Your task to perform on an android device: Search for Italian restaurants on Maps Image 0: 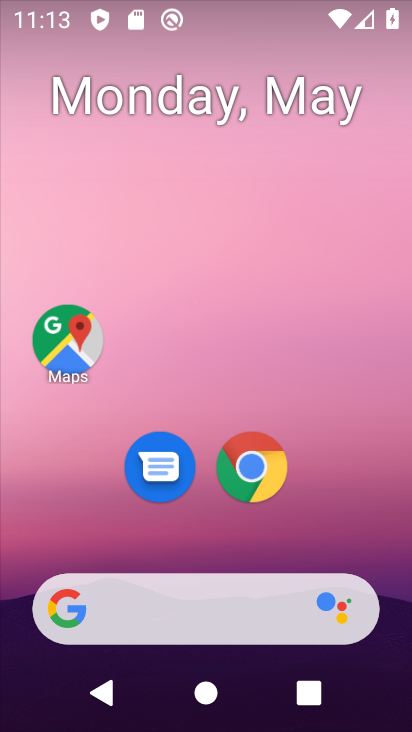
Step 0: click (72, 355)
Your task to perform on an android device: Search for Italian restaurants on Maps Image 1: 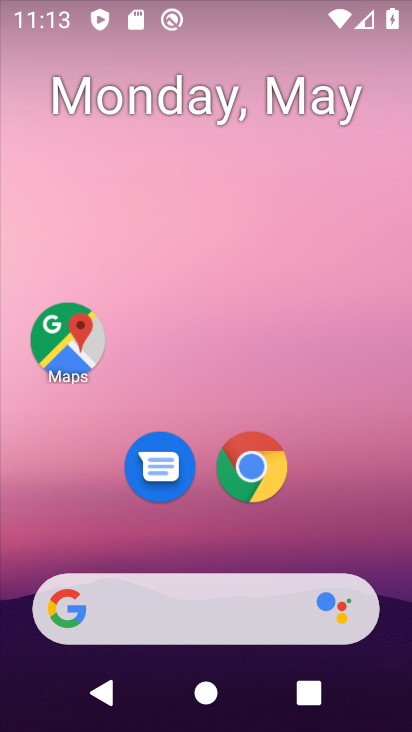
Step 1: click (74, 356)
Your task to perform on an android device: Search for Italian restaurants on Maps Image 2: 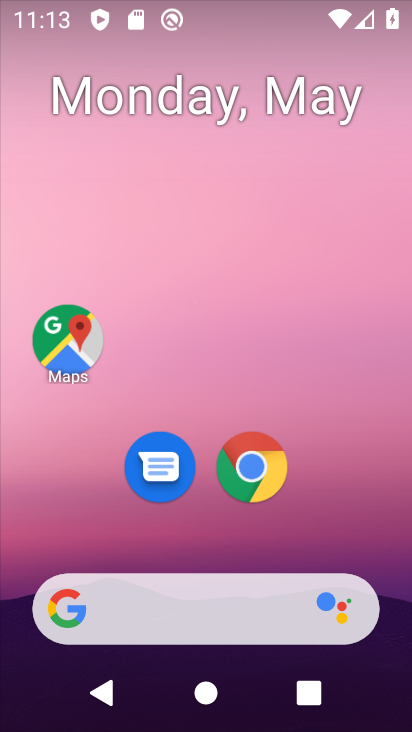
Step 2: click (78, 360)
Your task to perform on an android device: Search for Italian restaurants on Maps Image 3: 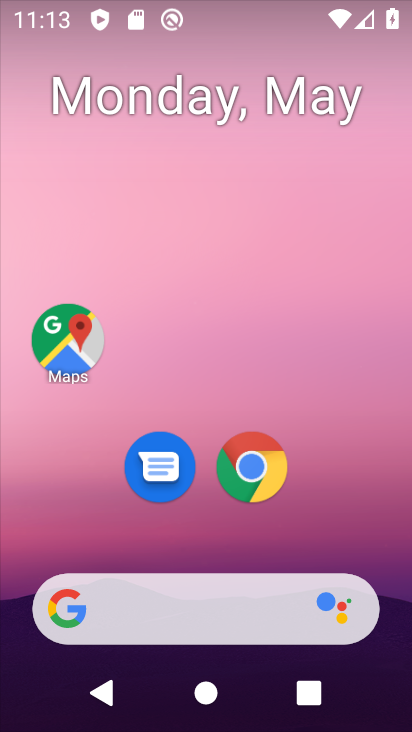
Step 3: click (75, 332)
Your task to perform on an android device: Search for Italian restaurants on Maps Image 4: 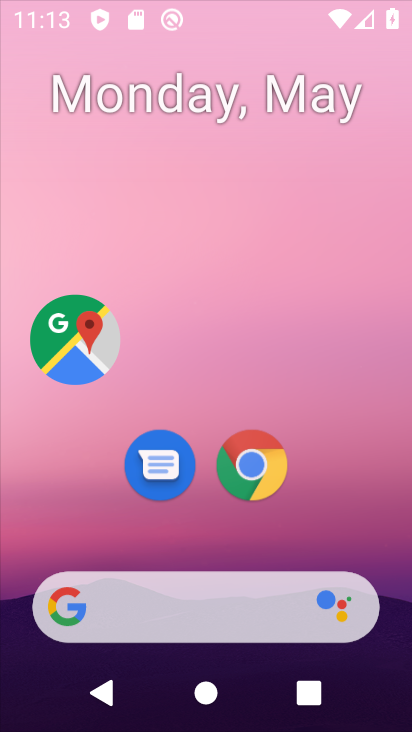
Step 4: click (78, 336)
Your task to perform on an android device: Search for Italian restaurants on Maps Image 5: 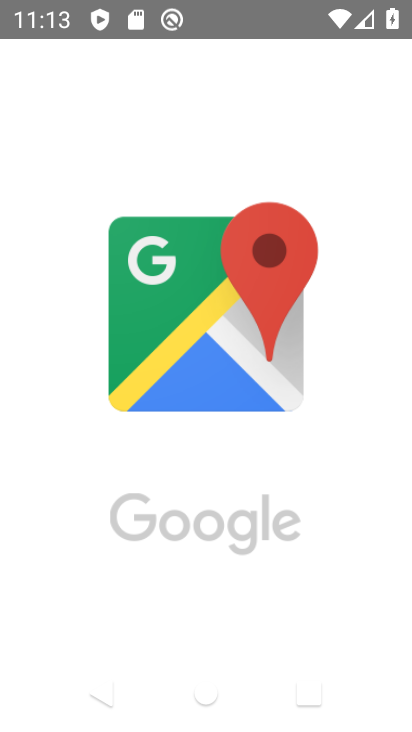
Step 5: click (78, 336)
Your task to perform on an android device: Search for Italian restaurants on Maps Image 6: 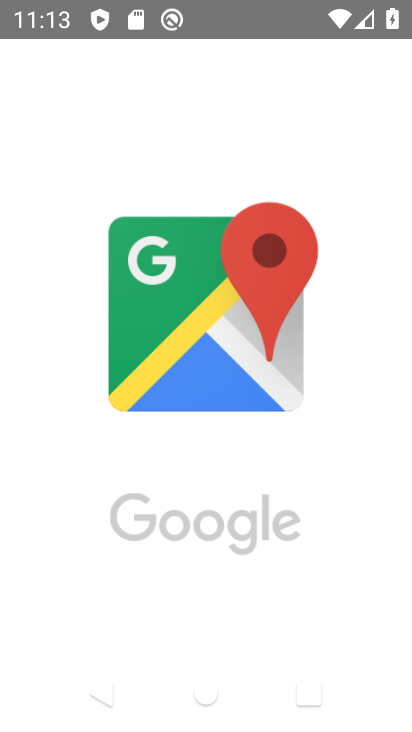
Step 6: click (81, 341)
Your task to perform on an android device: Search for Italian restaurants on Maps Image 7: 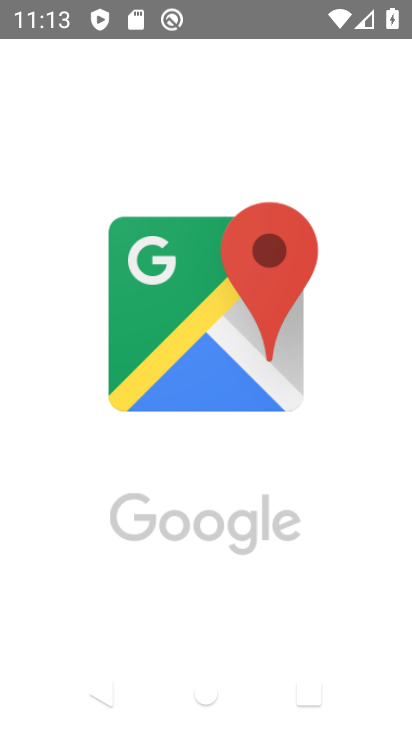
Step 7: click (208, 326)
Your task to perform on an android device: Search for Italian restaurants on Maps Image 8: 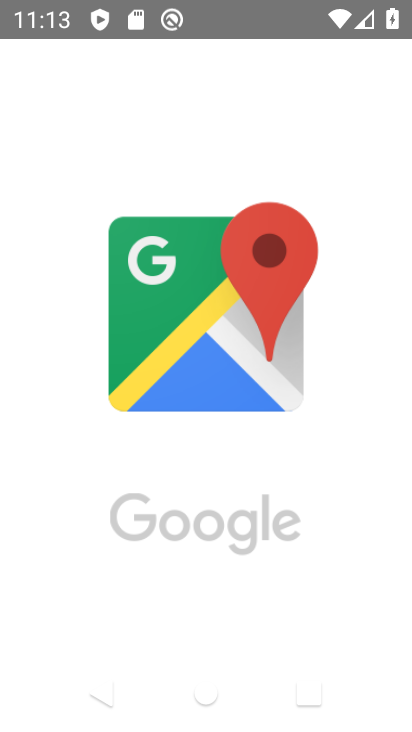
Step 8: click (203, 330)
Your task to perform on an android device: Search for Italian restaurants on Maps Image 9: 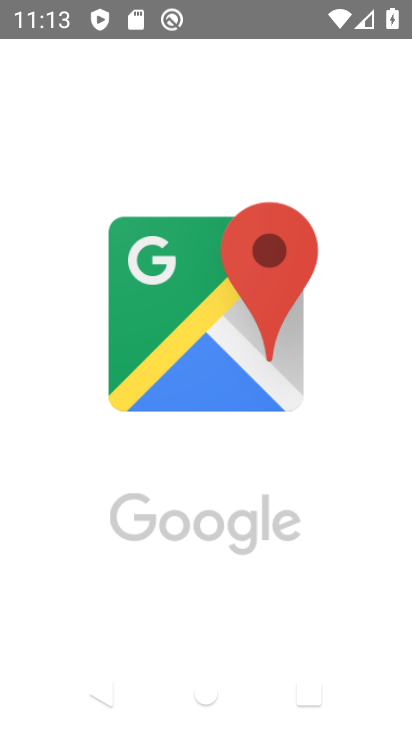
Step 9: click (198, 319)
Your task to perform on an android device: Search for Italian restaurants on Maps Image 10: 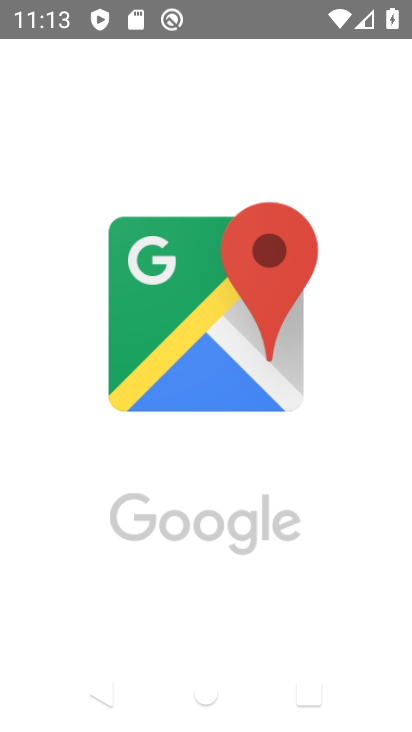
Step 10: click (196, 317)
Your task to perform on an android device: Search for Italian restaurants on Maps Image 11: 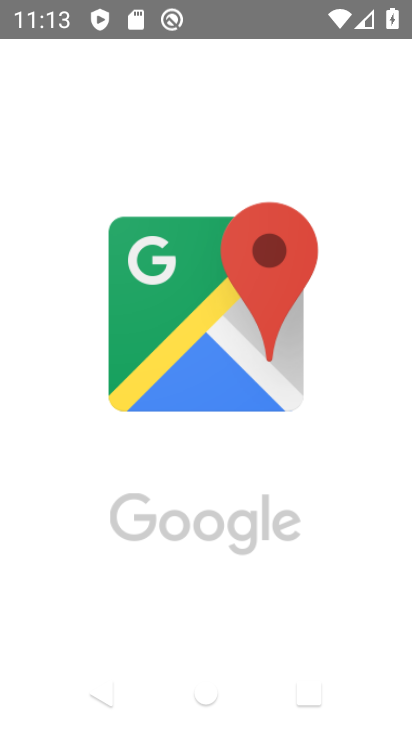
Step 11: click (194, 316)
Your task to perform on an android device: Search for Italian restaurants on Maps Image 12: 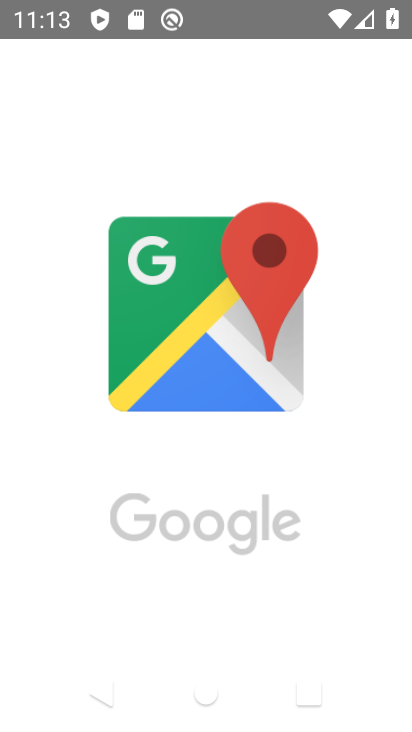
Step 12: click (194, 316)
Your task to perform on an android device: Search for Italian restaurants on Maps Image 13: 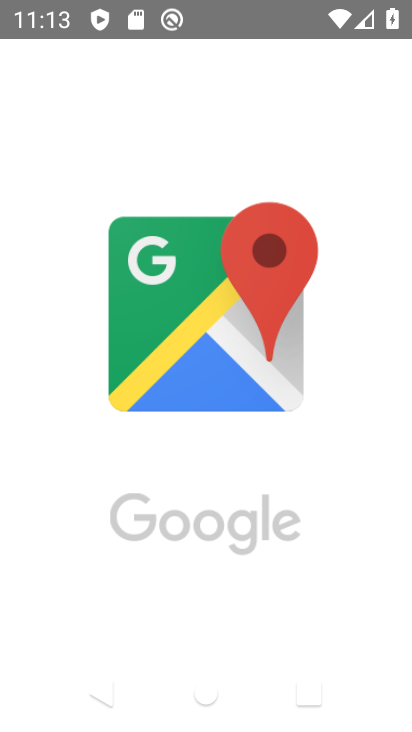
Step 13: click (227, 351)
Your task to perform on an android device: Search for Italian restaurants on Maps Image 14: 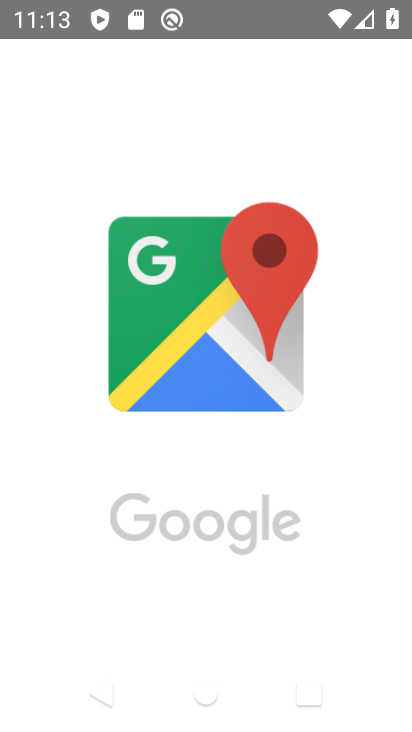
Step 14: click (226, 352)
Your task to perform on an android device: Search for Italian restaurants on Maps Image 15: 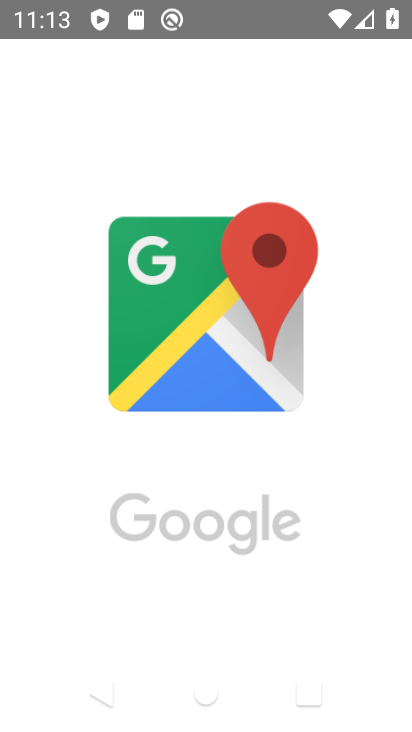
Step 15: click (226, 353)
Your task to perform on an android device: Search for Italian restaurants on Maps Image 16: 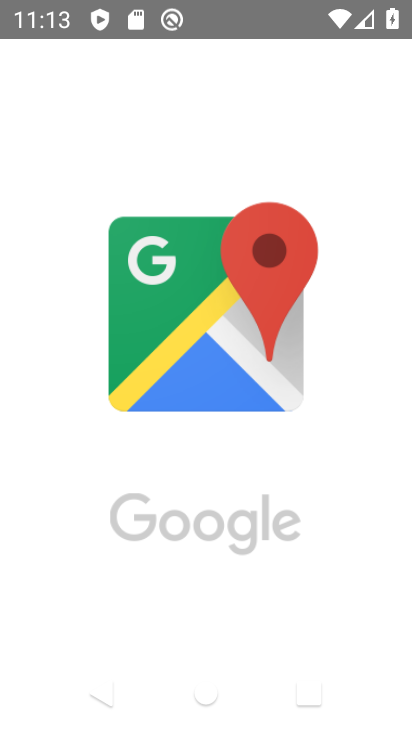
Step 16: click (226, 353)
Your task to perform on an android device: Search for Italian restaurants on Maps Image 17: 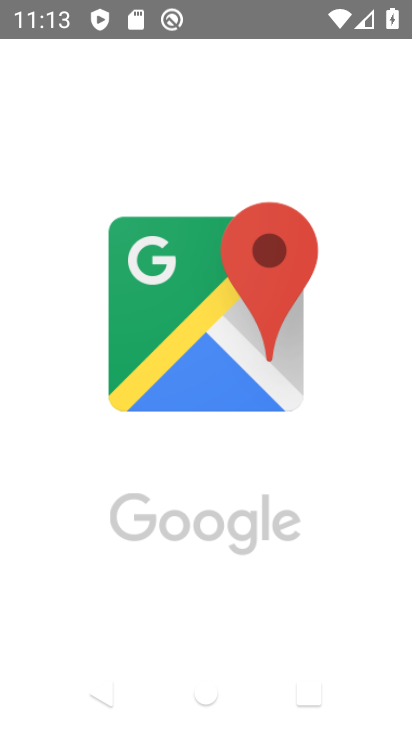
Step 17: click (226, 353)
Your task to perform on an android device: Search for Italian restaurants on Maps Image 18: 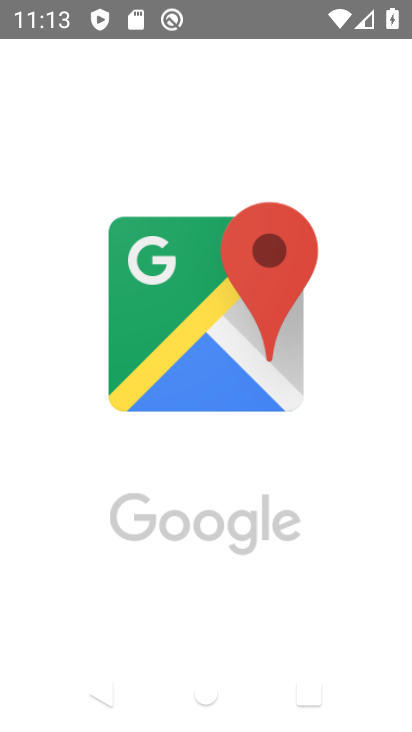
Step 18: click (226, 353)
Your task to perform on an android device: Search for Italian restaurants on Maps Image 19: 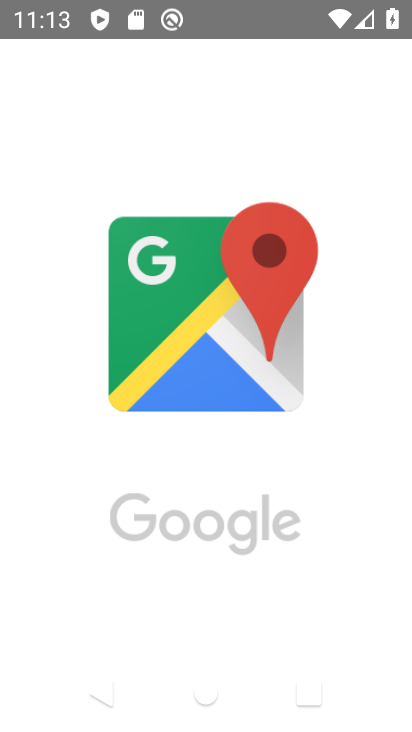
Step 19: click (226, 353)
Your task to perform on an android device: Search for Italian restaurants on Maps Image 20: 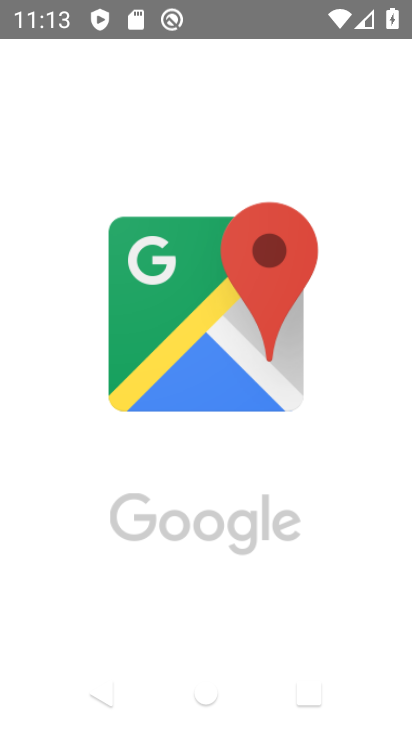
Step 20: click (226, 353)
Your task to perform on an android device: Search for Italian restaurants on Maps Image 21: 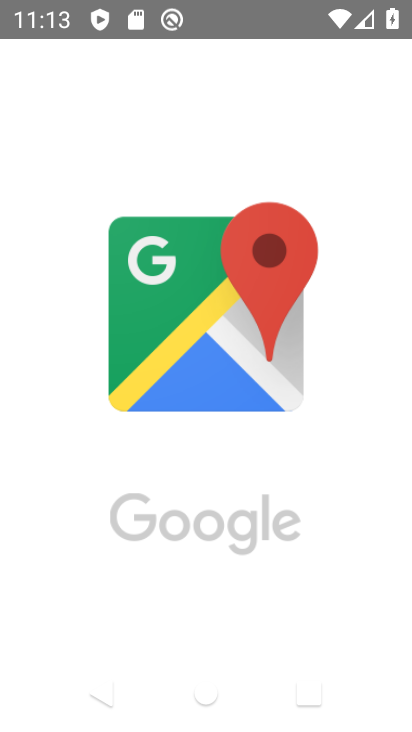
Step 21: click (226, 353)
Your task to perform on an android device: Search for Italian restaurants on Maps Image 22: 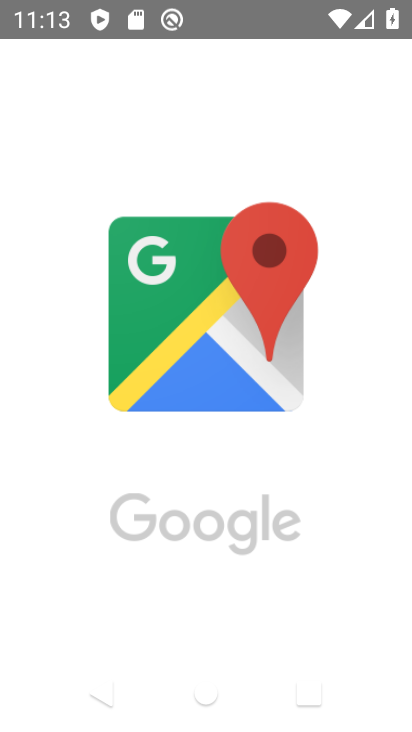
Step 22: click (226, 353)
Your task to perform on an android device: Search for Italian restaurants on Maps Image 23: 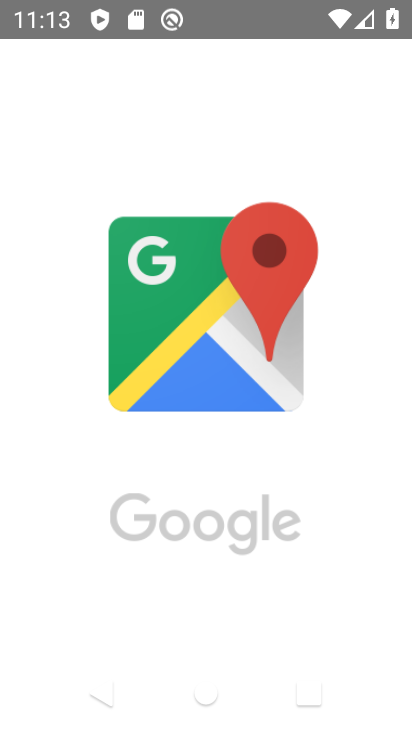
Step 23: click (226, 353)
Your task to perform on an android device: Search for Italian restaurants on Maps Image 24: 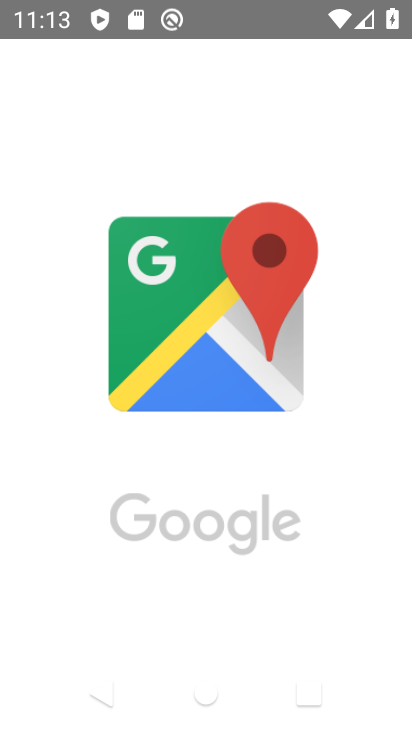
Step 24: click (227, 352)
Your task to perform on an android device: Search for Italian restaurants on Maps Image 25: 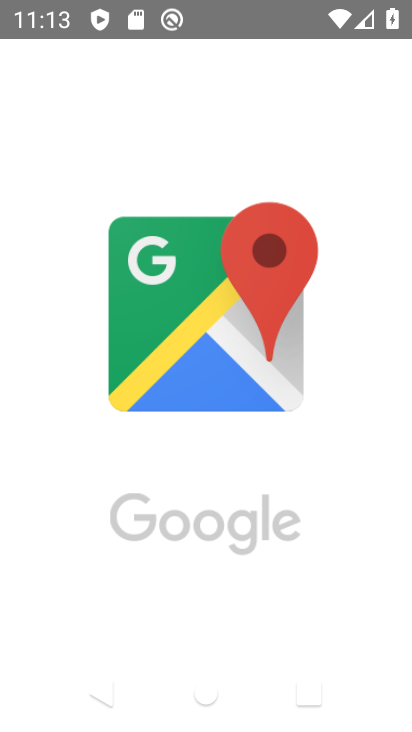
Step 25: click (227, 352)
Your task to perform on an android device: Search for Italian restaurants on Maps Image 26: 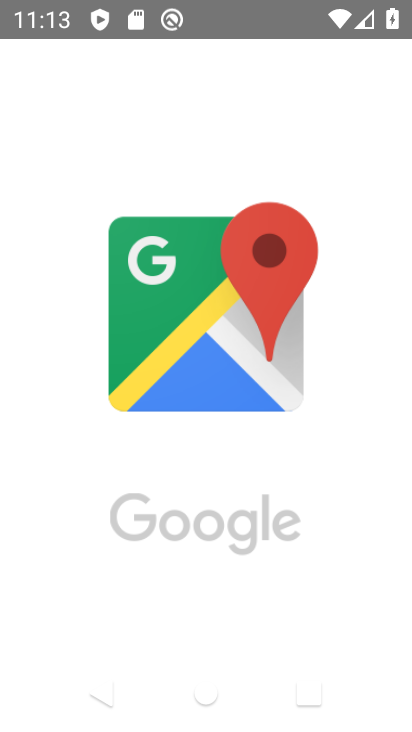
Step 26: click (221, 351)
Your task to perform on an android device: Search for Italian restaurants on Maps Image 27: 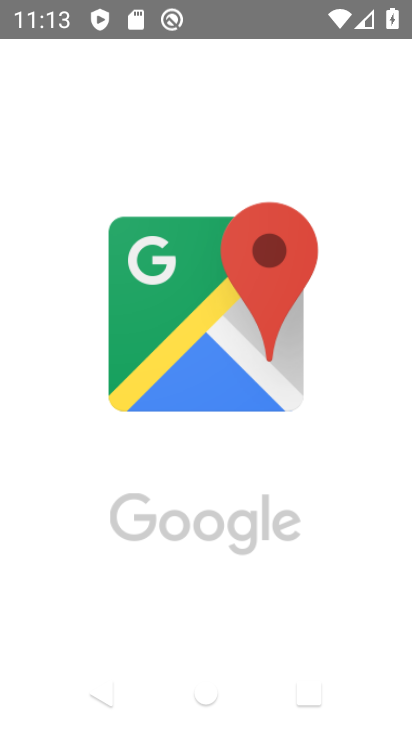
Step 27: click (184, 358)
Your task to perform on an android device: Search for Italian restaurants on Maps Image 28: 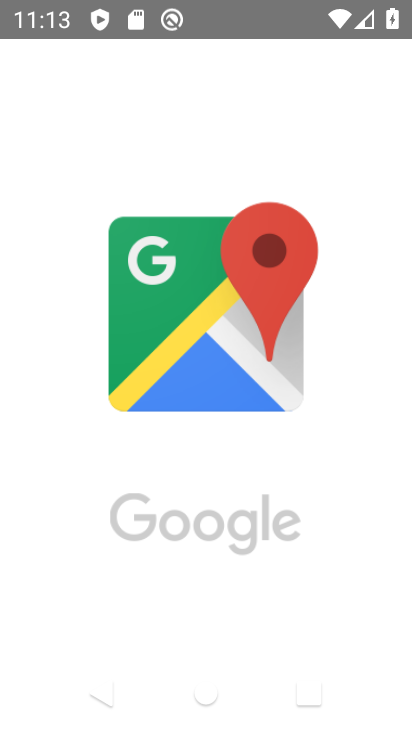
Step 28: click (197, 387)
Your task to perform on an android device: Search for Italian restaurants on Maps Image 29: 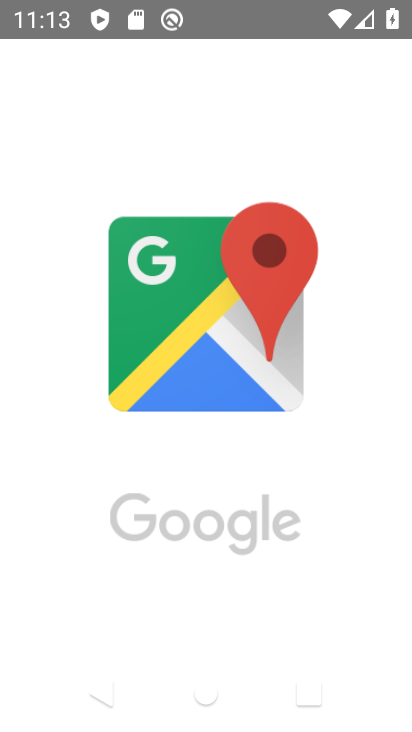
Step 29: click (191, 344)
Your task to perform on an android device: Search for Italian restaurants on Maps Image 30: 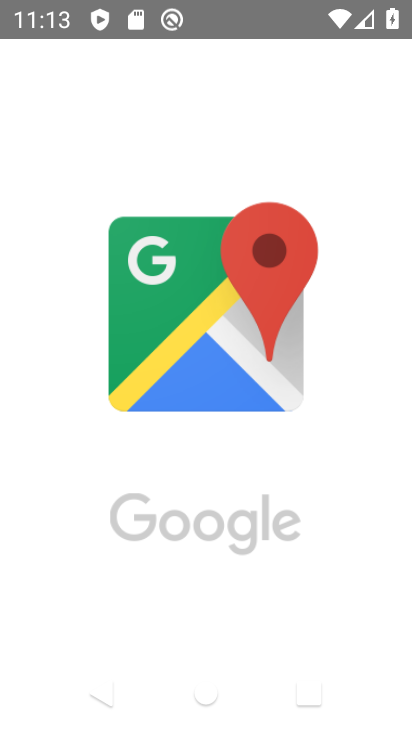
Step 30: click (191, 344)
Your task to perform on an android device: Search for Italian restaurants on Maps Image 31: 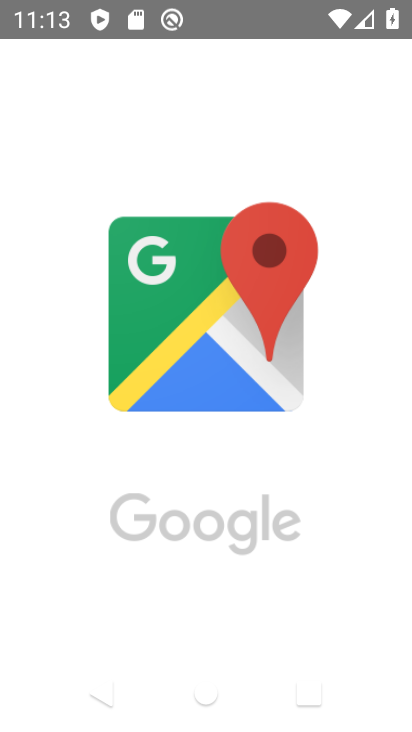
Step 31: click (183, 343)
Your task to perform on an android device: Search for Italian restaurants on Maps Image 32: 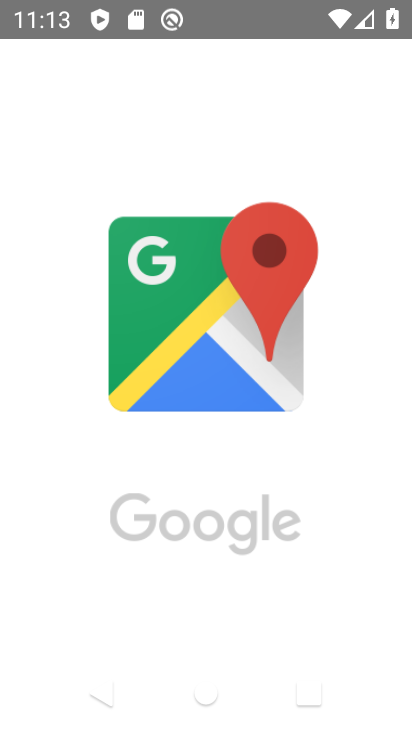
Step 32: click (183, 343)
Your task to perform on an android device: Search for Italian restaurants on Maps Image 33: 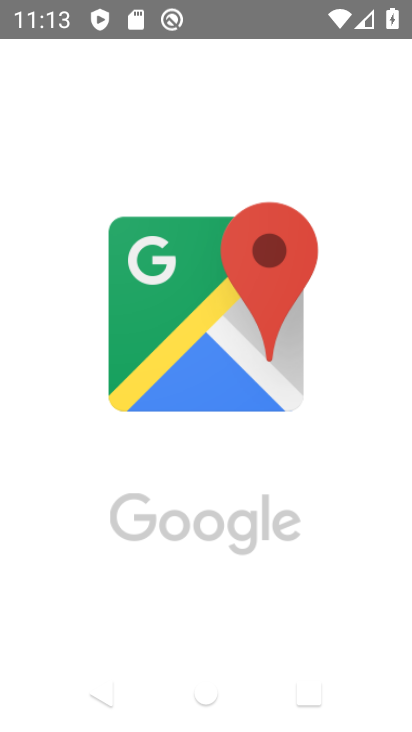
Step 33: click (184, 343)
Your task to perform on an android device: Search for Italian restaurants on Maps Image 34: 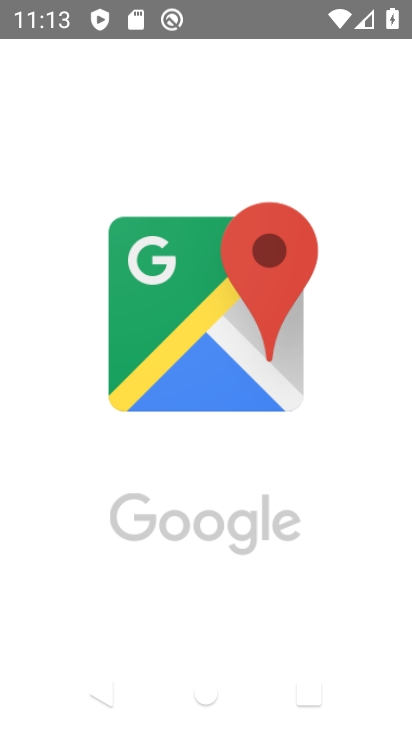
Step 34: click (188, 333)
Your task to perform on an android device: Search for Italian restaurants on Maps Image 35: 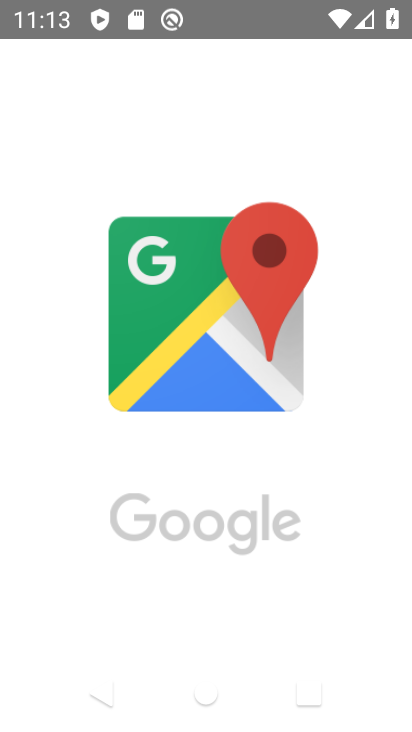
Step 35: drag from (188, 324) to (235, 271)
Your task to perform on an android device: Search for Italian restaurants on Maps Image 36: 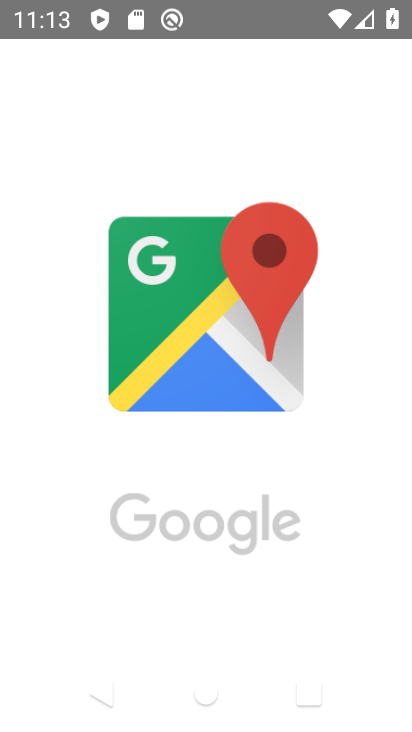
Step 36: click (160, 332)
Your task to perform on an android device: Search for Italian restaurants on Maps Image 37: 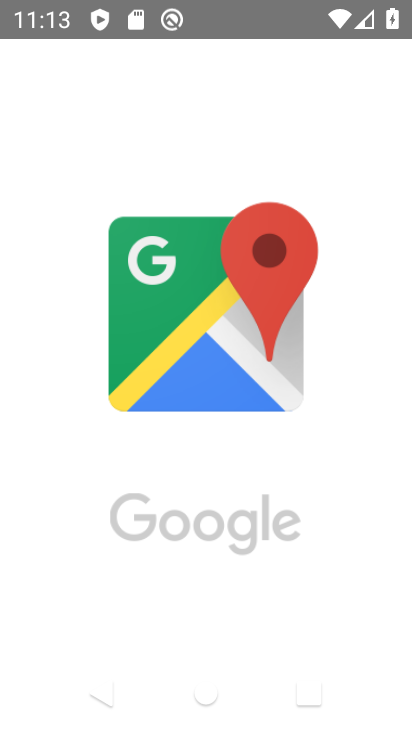
Step 37: click (169, 332)
Your task to perform on an android device: Search for Italian restaurants on Maps Image 38: 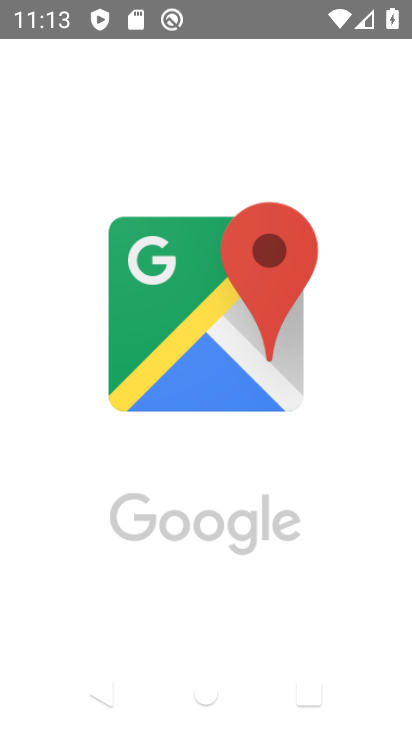
Step 38: click (169, 332)
Your task to perform on an android device: Search for Italian restaurants on Maps Image 39: 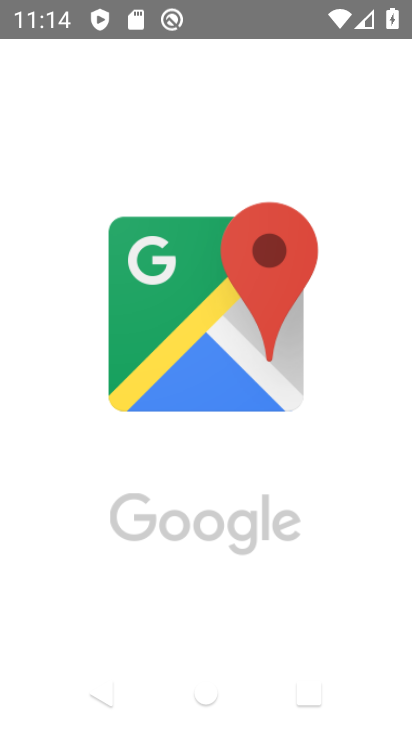
Step 39: click (227, 342)
Your task to perform on an android device: Search for Italian restaurants on Maps Image 40: 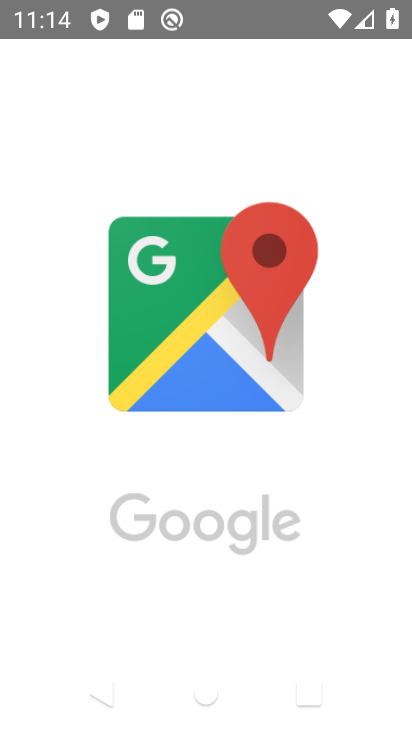
Step 40: click (249, 364)
Your task to perform on an android device: Search for Italian restaurants on Maps Image 41: 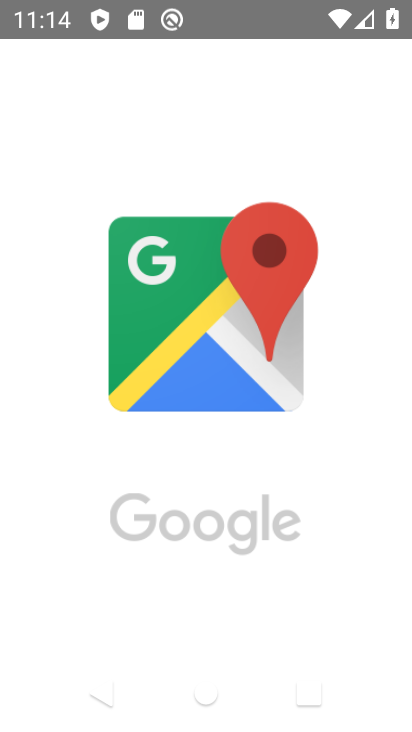
Step 41: click (257, 378)
Your task to perform on an android device: Search for Italian restaurants on Maps Image 42: 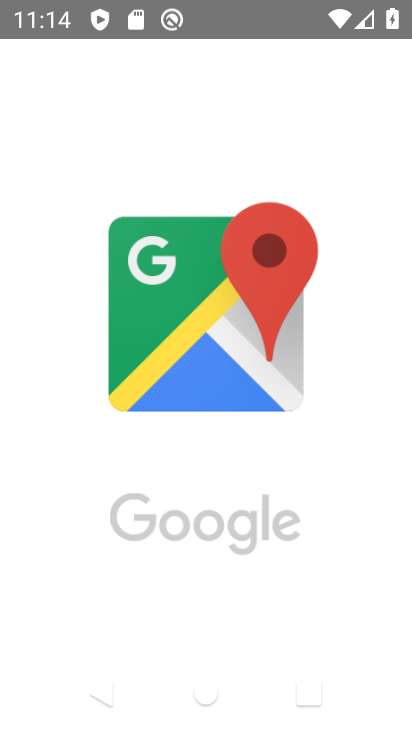
Step 42: click (257, 378)
Your task to perform on an android device: Search for Italian restaurants on Maps Image 43: 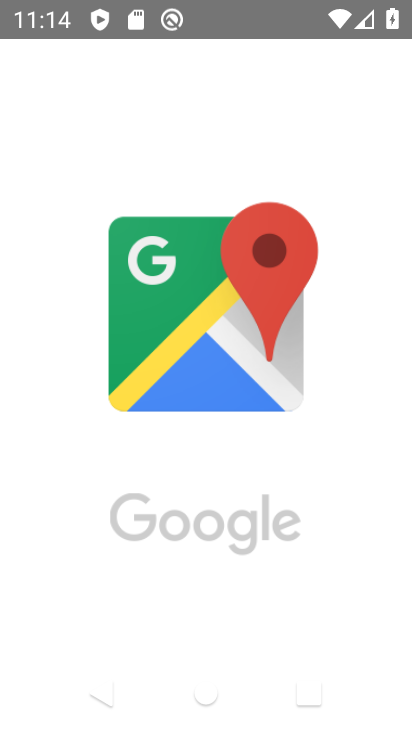
Step 43: click (257, 378)
Your task to perform on an android device: Search for Italian restaurants on Maps Image 44: 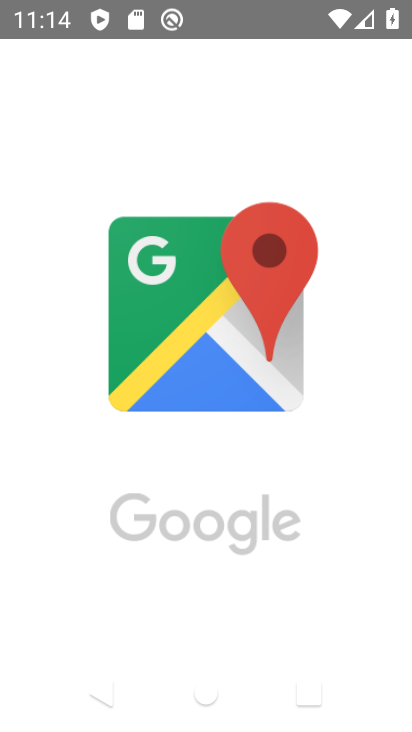
Step 44: click (258, 378)
Your task to perform on an android device: Search for Italian restaurants on Maps Image 45: 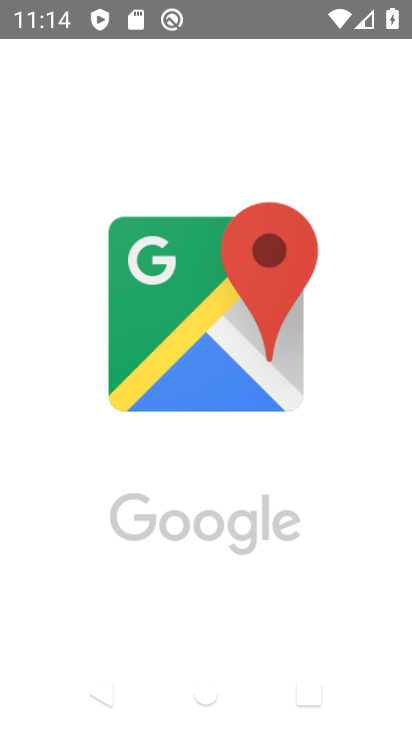
Step 45: click (258, 378)
Your task to perform on an android device: Search for Italian restaurants on Maps Image 46: 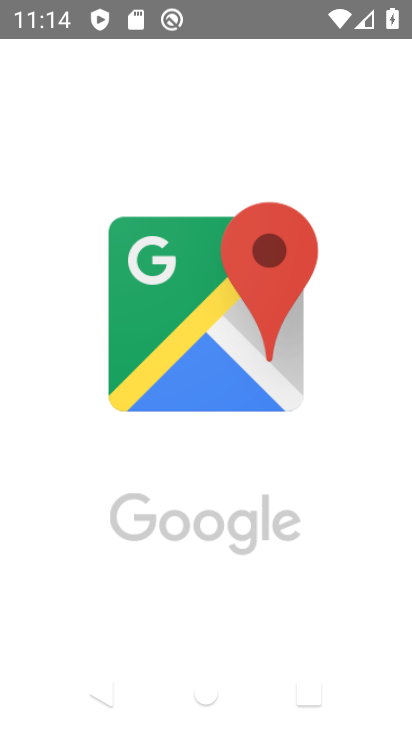
Step 46: click (259, 379)
Your task to perform on an android device: Search for Italian restaurants on Maps Image 47: 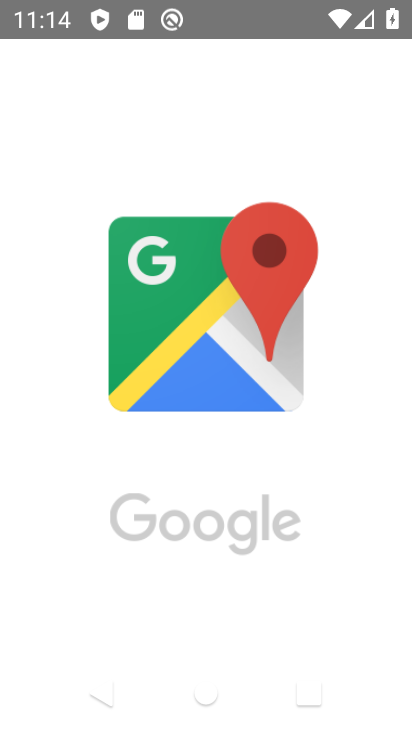
Step 47: click (208, 314)
Your task to perform on an android device: Search for Italian restaurants on Maps Image 48: 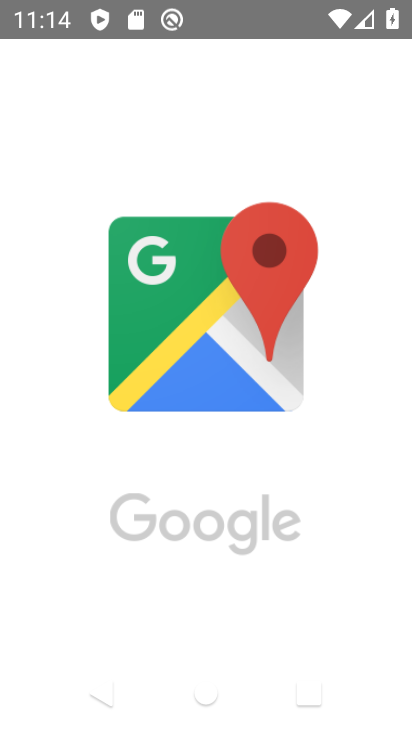
Step 48: click (232, 341)
Your task to perform on an android device: Search for Italian restaurants on Maps Image 49: 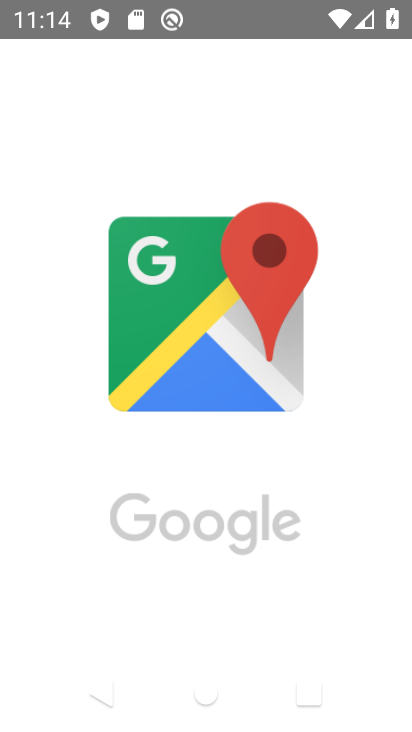
Step 49: click (232, 341)
Your task to perform on an android device: Search for Italian restaurants on Maps Image 50: 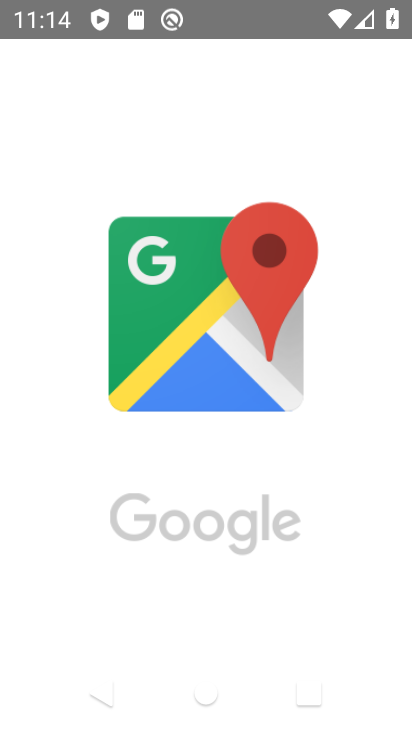
Step 50: click (232, 342)
Your task to perform on an android device: Search for Italian restaurants on Maps Image 51: 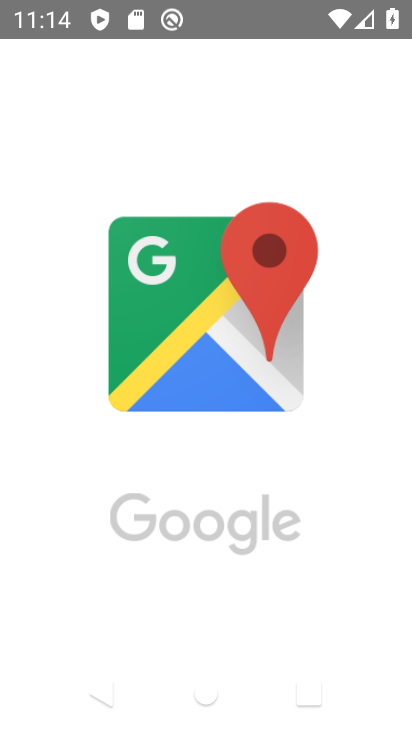
Step 51: click (242, 427)
Your task to perform on an android device: Search for Italian restaurants on Maps Image 52: 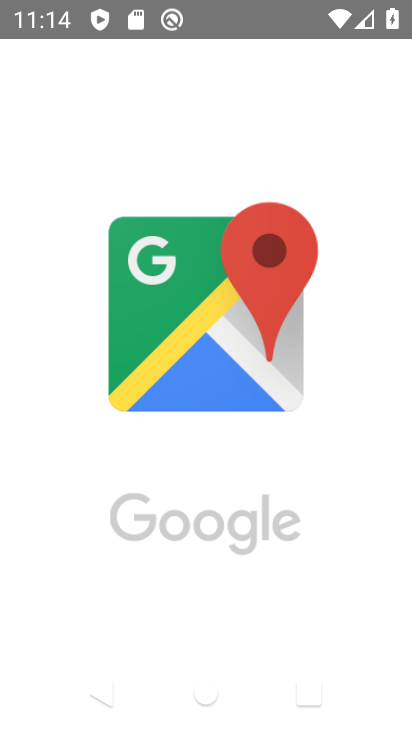
Step 52: click (235, 342)
Your task to perform on an android device: Search for Italian restaurants on Maps Image 53: 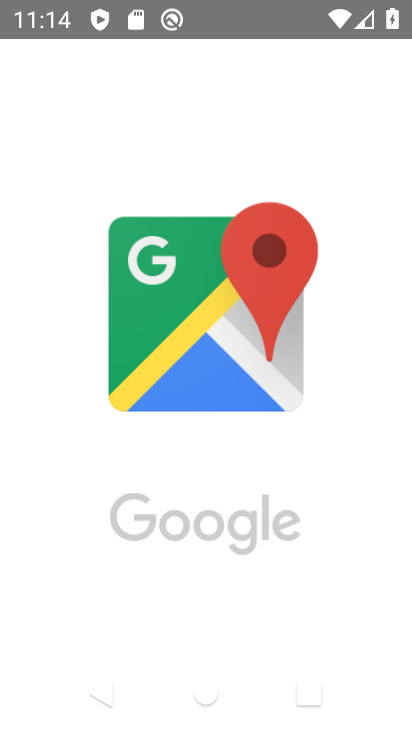
Step 53: click (241, 354)
Your task to perform on an android device: Search for Italian restaurants on Maps Image 54: 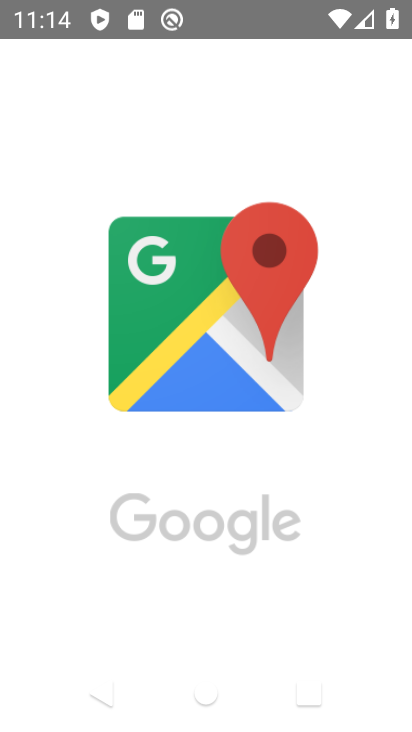
Step 54: click (241, 354)
Your task to perform on an android device: Search for Italian restaurants on Maps Image 55: 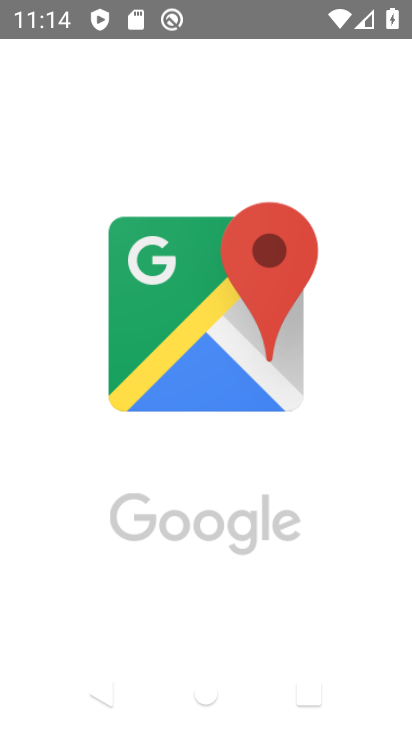
Step 55: click (245, 354)
Your task to perform on an android device: Search for Italian restaurants on Maps Image 56: 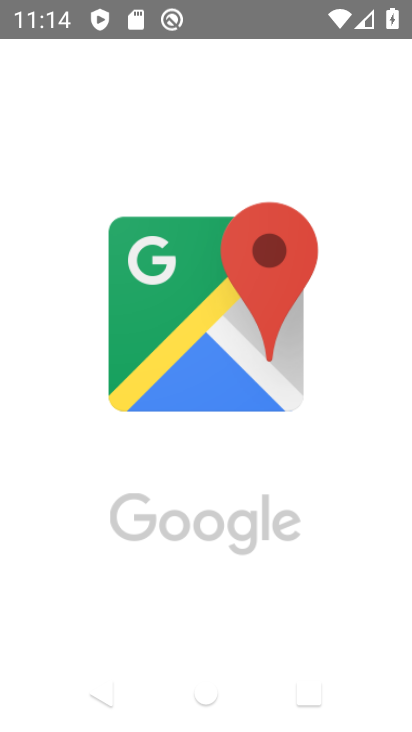
Step 56: click (245, 355)
Your task to perform on an android device: Search for Italian restaurants on Maps Image 57: 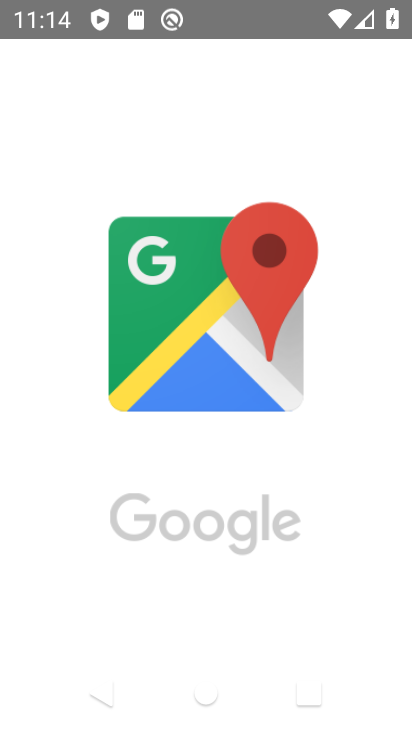
Step 57: task complete